Your task to perform on an android device: Open Google Chrome and click the shortcut for Amazon.com Image 0: 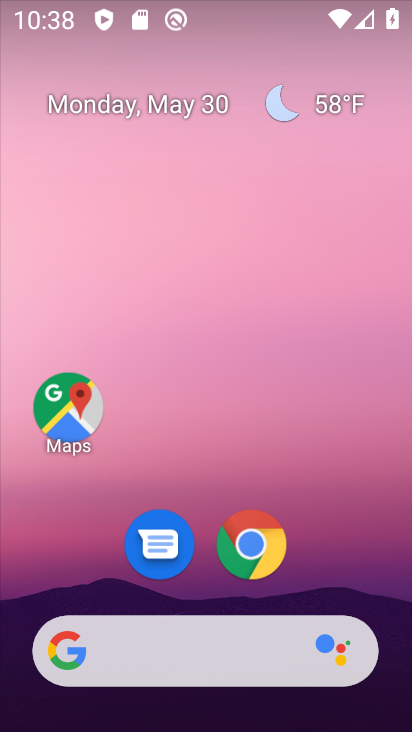
Step 0: click (267, 542)
Your task to perform on an android device: Open Google Chrome and click the shortcut for Amazon.com Image 1: 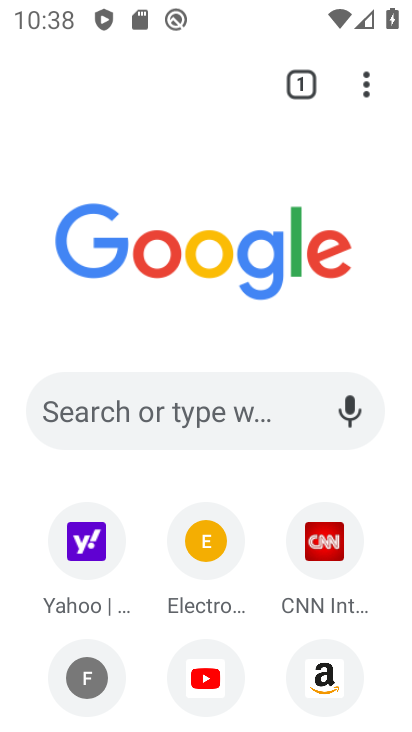
Step 1: click (322, 670)
Your task to perform on an android device: Open Google Chrome and click the shortcut for Amazon.com Image 2: 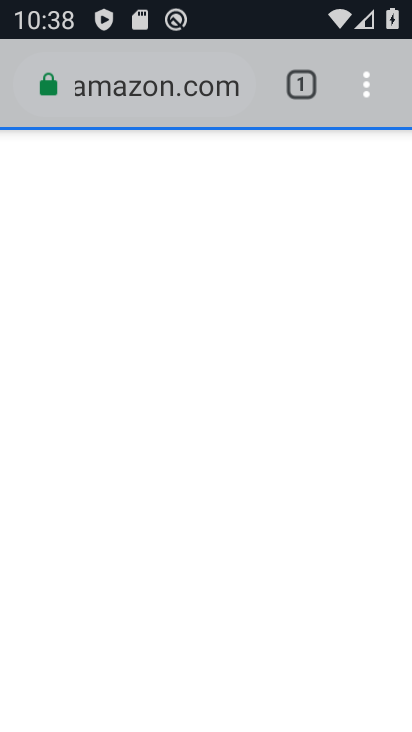
Step 2: task complete